Your task to perform on an android device: check data usage Image 0: 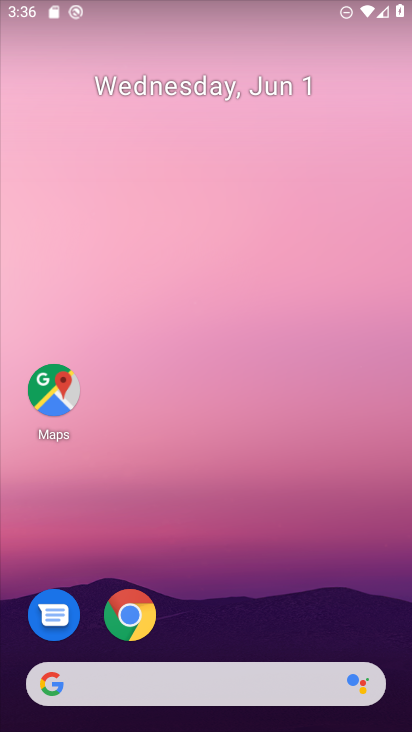
Step 0: press home button
Your task to perform on an android device: check data usage Image 1: 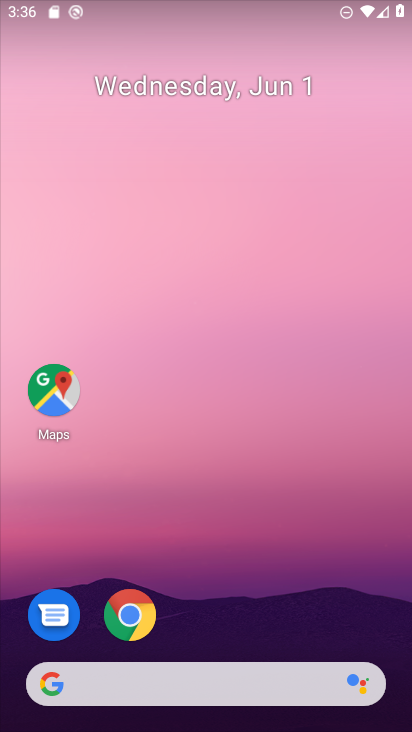
Step 1: drag from (259, 255) to (271, 95)
Your task to perform on an android device: check data usage Image 2: 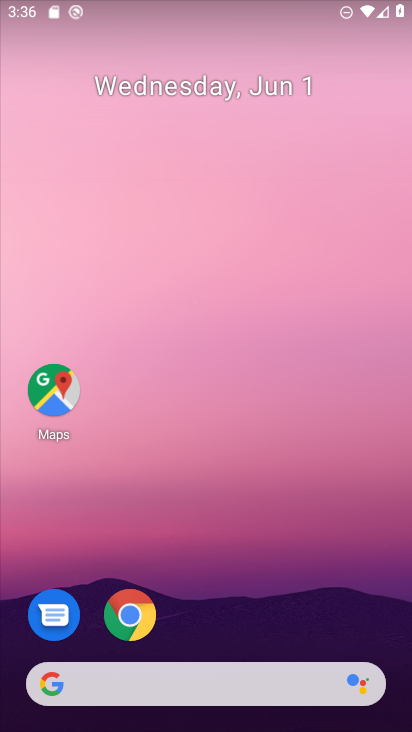
Step 2: drag from (225, 476) to (231, 55)
Your task to perform on an android device: check data usage Image 3: 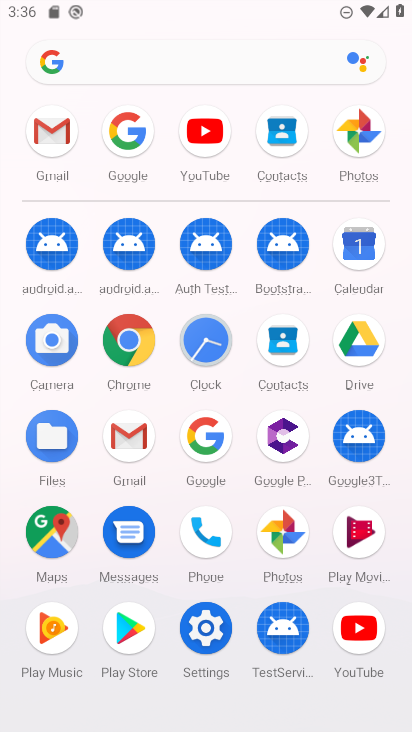
Step 3: click (207, 622)
Your task to perform on an android device: check data usage Image 4: 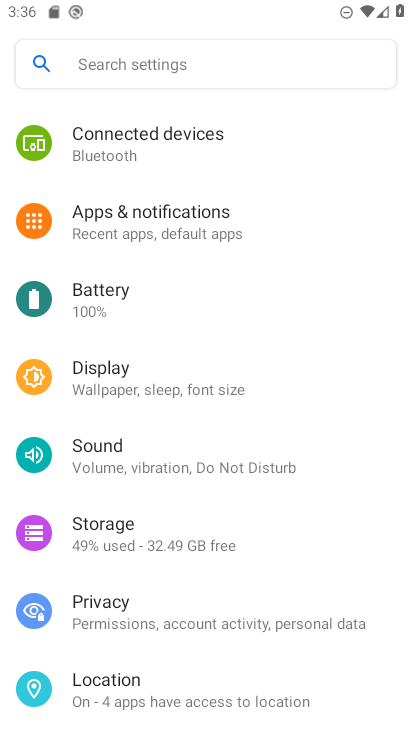
Step 4: drag from (185, 205) to (220, 647)
Your task to perform on an android device: check data usage Image 5: 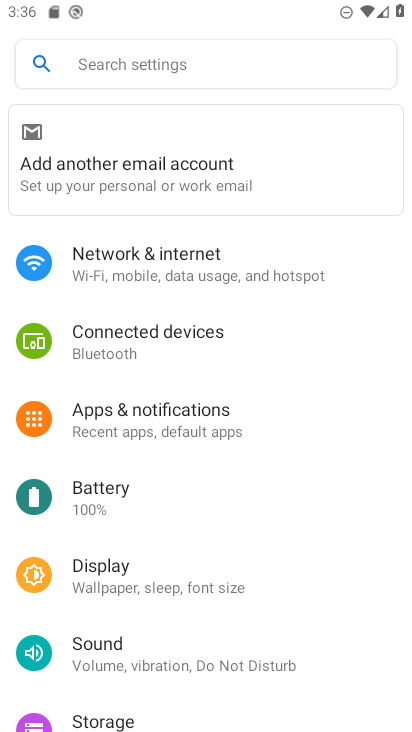
Step 5: click (241, 263)
Your task to perform on an android device: check data usage Image 6: 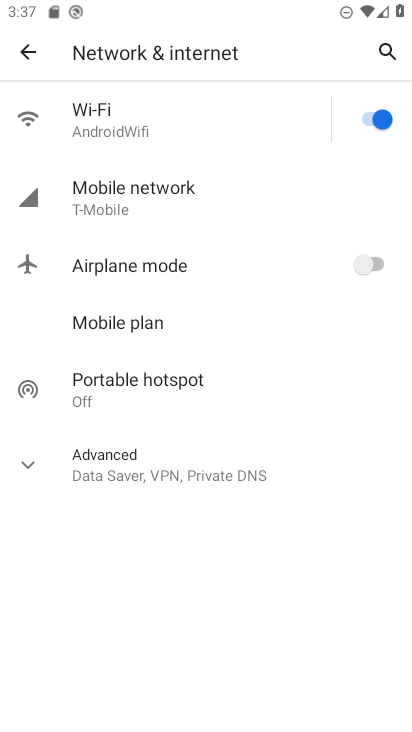
Step 6: click (147, 194)
Your task to perform on an android device: check data usage Image 7: 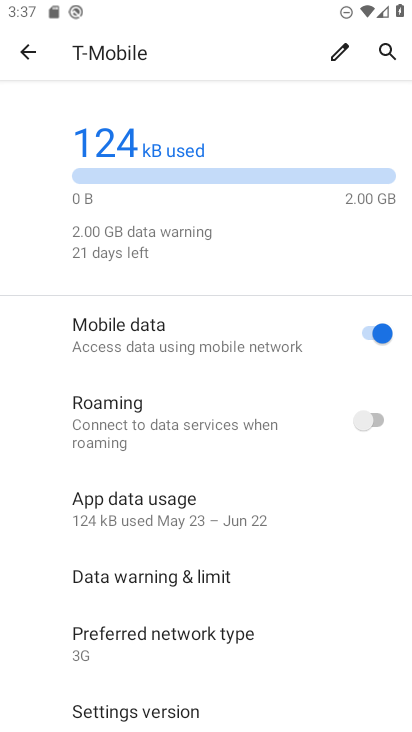
Step 7: click (198, 511)
Your task to perform on an android device: check data usage Image 8: 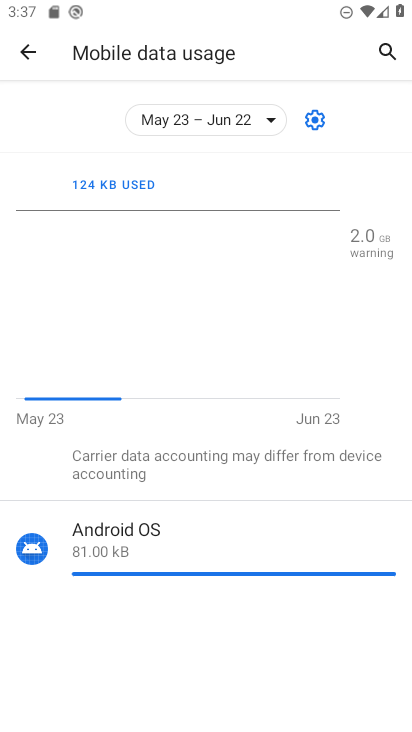
Step 8: task complete